Your task to perform on an android device: open chrome and create a bookmark for the current page Image 0: 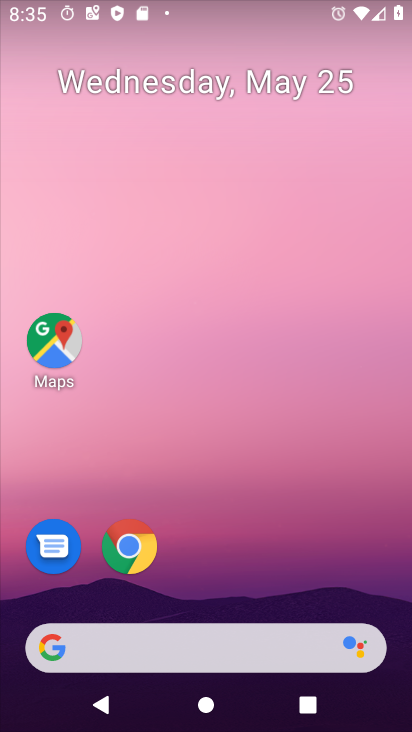
Step 0: click (136, 551)
Your task to perform on an android device: open chrome and create a bookmark for the current page Image 1: 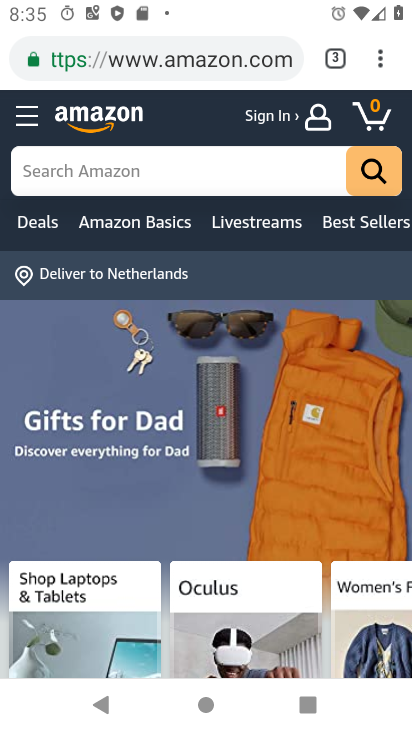
Step 1: click (382, 63)
Your task to perform on an android device: open chrome and create a bookmark for the current page Image 2: 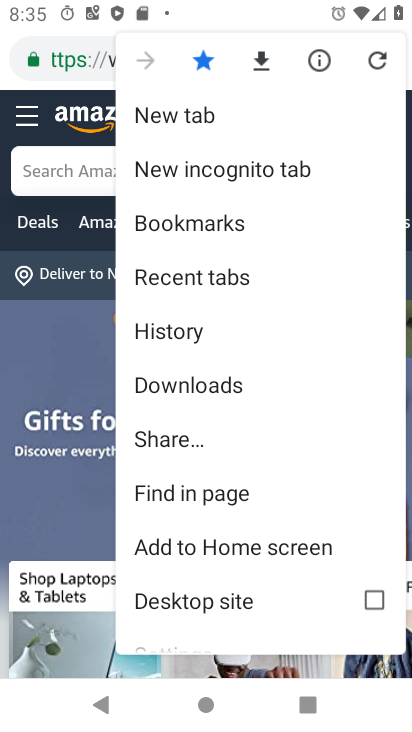
Step 2: task complete